Your task to perform on an android device: change keyboard looks Image 0: 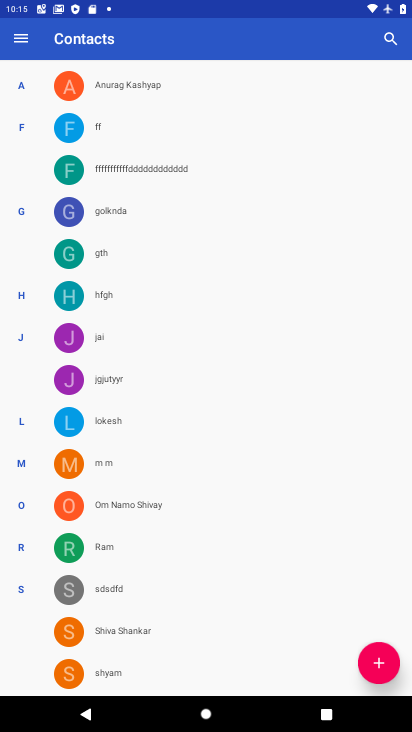
Step 0: press home button
Your task to perform on an android device: change keyboard looks Image 1: 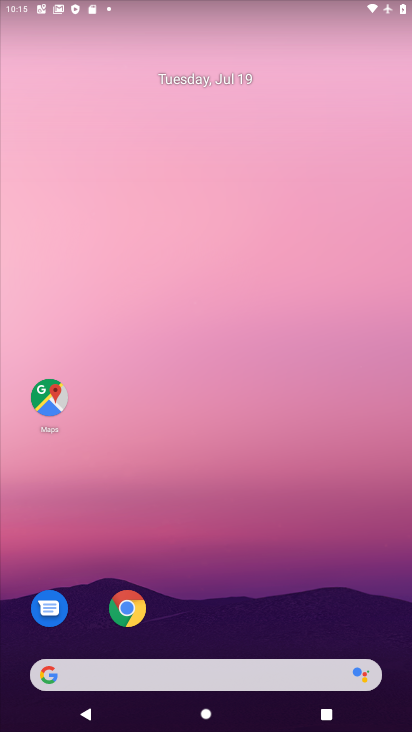
Step 1: drag from (261, 503) to (254, 85)
Your task to perform on an android device: change keyboard looks Image 2: 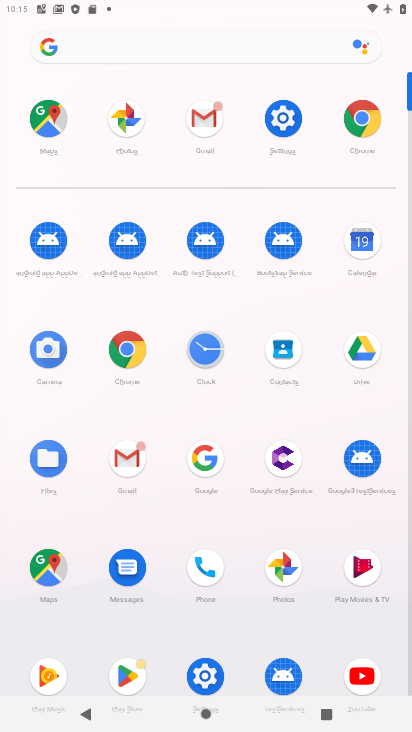
Step 2: click (287, 106)
Your task to perform on an android device: change keyboard looks Image 3: 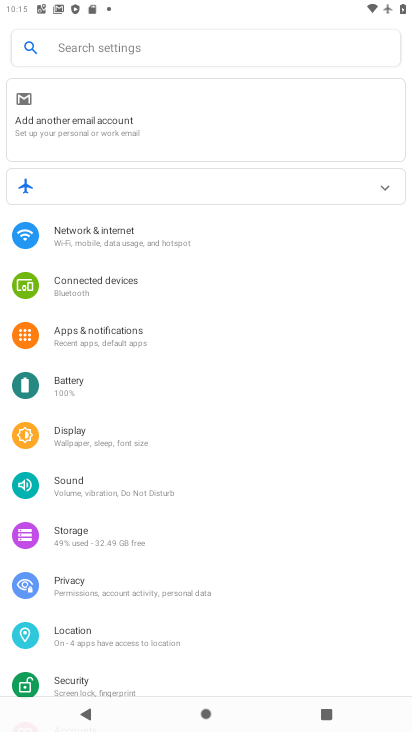
Step 3: drag from (199, 556) to (253, 120)
Your task to perform on an android device: change keyboard looks Image 4: 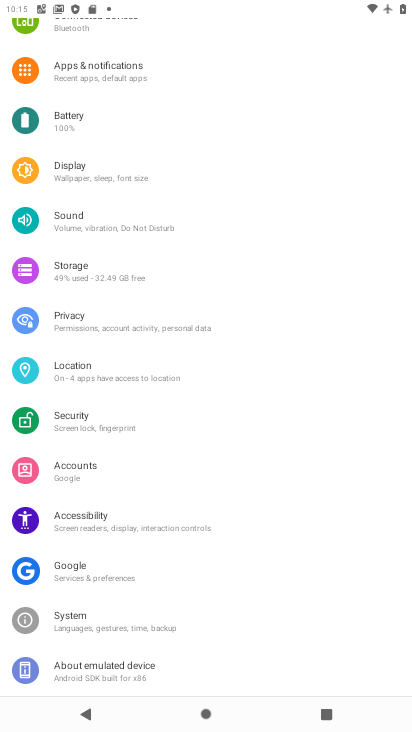
Step 4: click (95, 631)
Your task to perform on an android device: change keyboard looks Image 5: 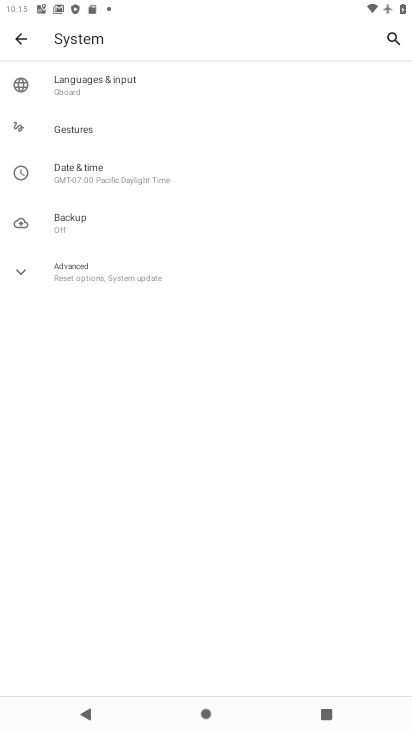
Step 5: click (120, 91)
Your task to perform on an android device: change keyboard looks Image 6: 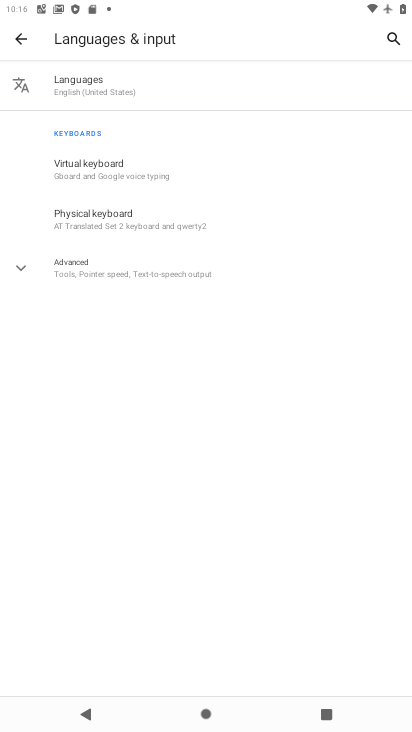
Step 6: click (111, 160)
Your task to perform on an android device: change keyboard looks Image 7: 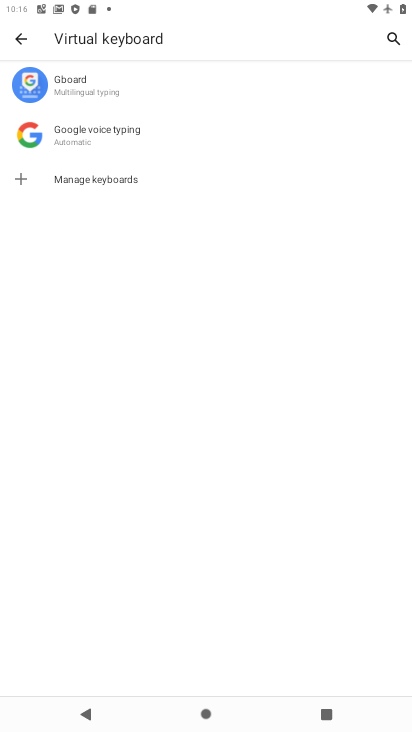
Step 7: click (98, 79)
Your task to perform on an android device: change keyboard looks Image 8: 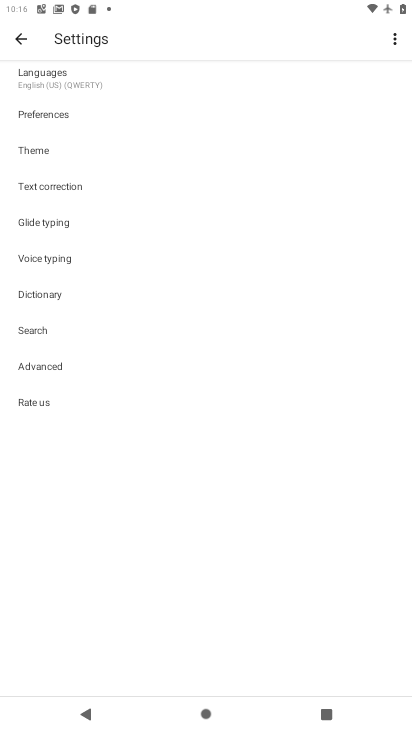
Step 8: click (47, 149)
Your task to perform on an android device: change keyboard looks Image 9: 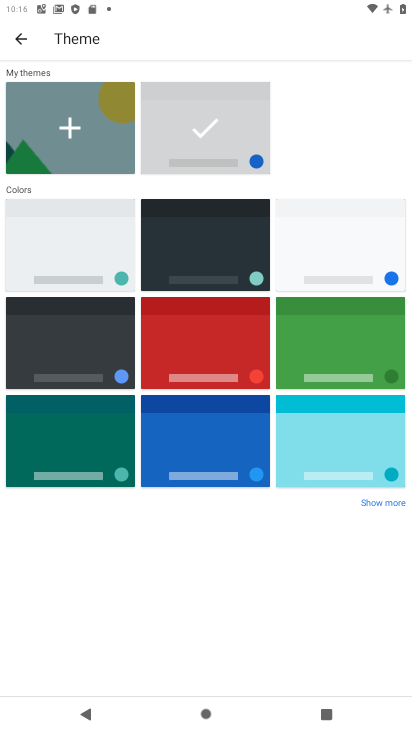
Step 9: click (104, 250)
Your task to perform on an android device: change keyboard looks Image 10: 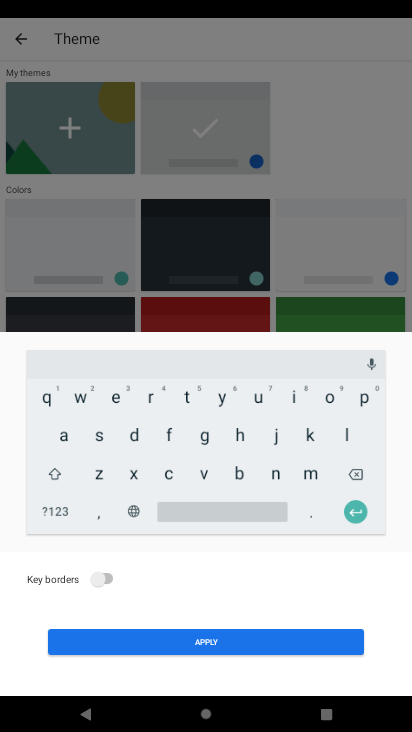
Step 10: click (266, 637)
Your task to perform on an android device: change keyboard looks Image 11: 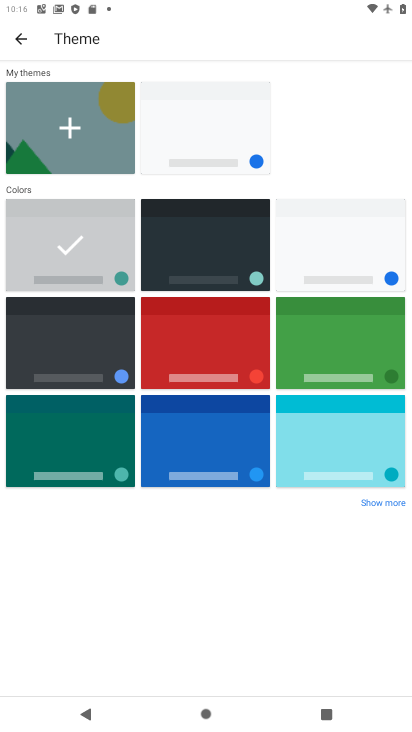
Step 11: task complete